Your task to perform on an android device: Open settings on Google Maps Image 0: 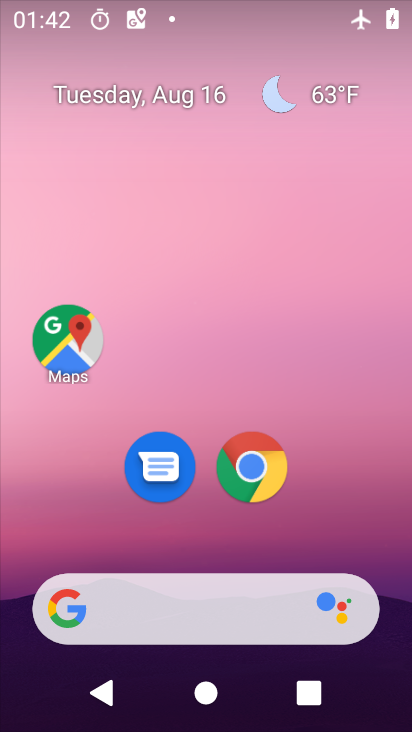
Step 0: press home button
Your task to perform on an android device: Open settings on Google Maps Image 1: 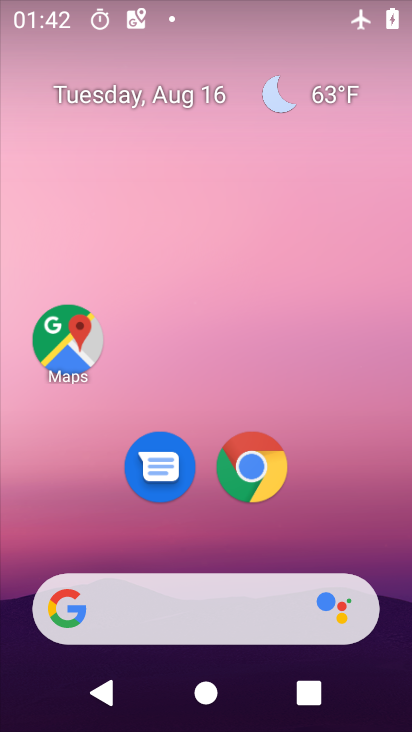
Step 1: drag from (381, 514) to (384, 117)
Your task to perform on an android device: Open settings on Google Maps Image 2: 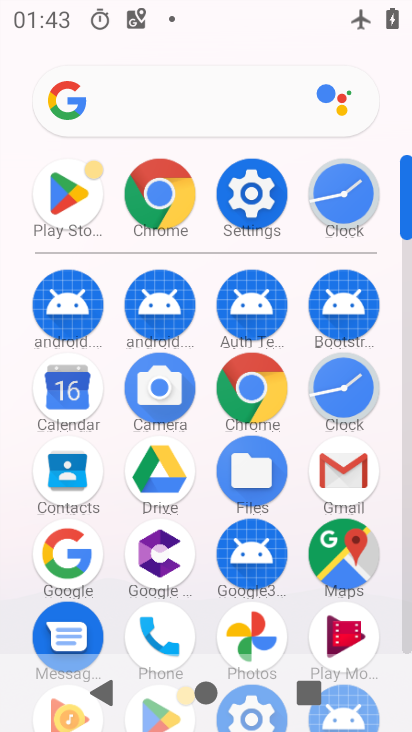
Step 2: click (351, 571)
Your task to perform on an android device: Open settings on Google Maps Image 3: 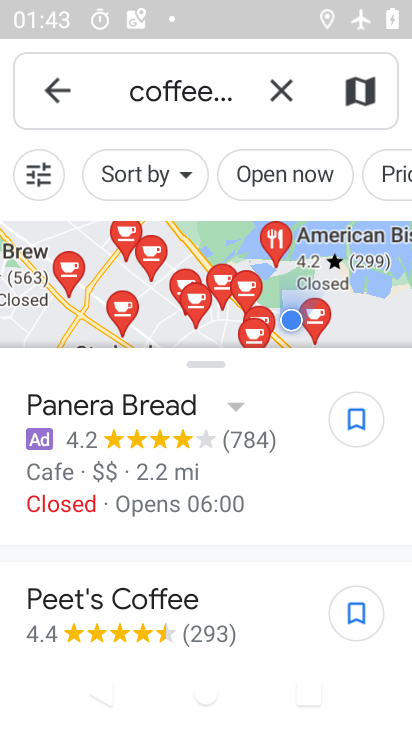
Step 3: press back button
Your task to perform on an android device: Open settings on Google Maps Image 4: 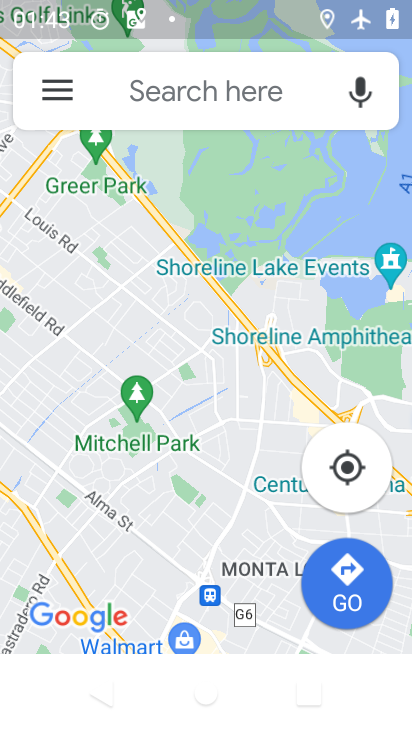
Step 4: click (51, 85)
Your task to perform on an android device: Open settings on Google Maps Image 5: 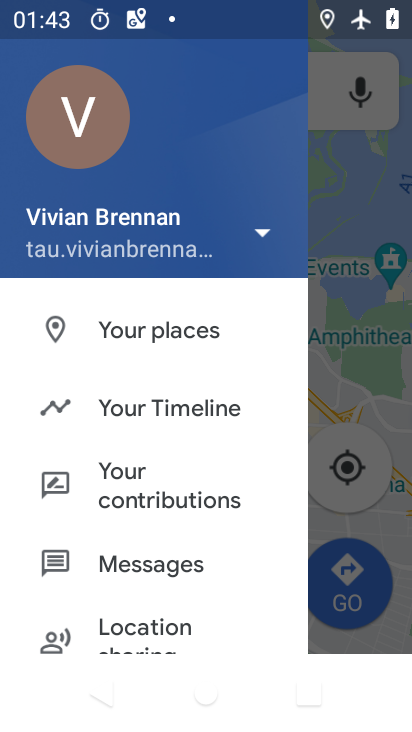
Step 5: drag from (236, 584) to (260, 462)
Your task to perform on an android device: Open settings on Google Maps Image 6: 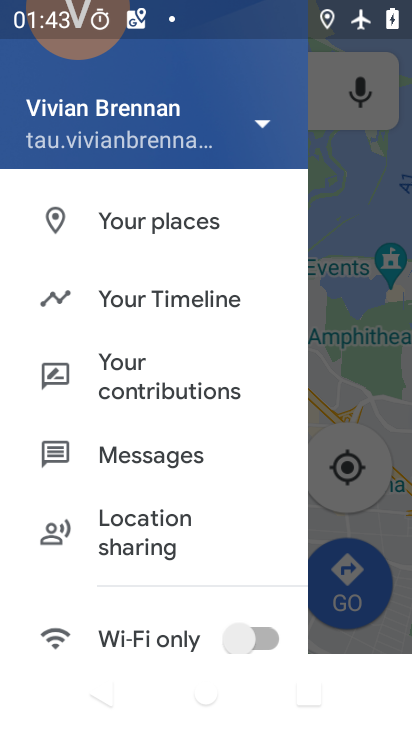
Step 6: drag from (211, 612) to (197, 446)
Your task to perform on an android device: Open settings on Google Maps Image 7: 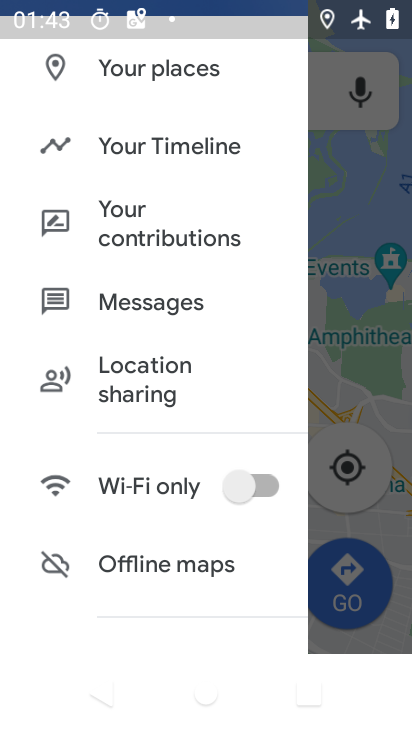
Step 7: drag from (183, 637) to (182, 423)
Your task to perform on an android device: Open settings on Google Maps Image 8: 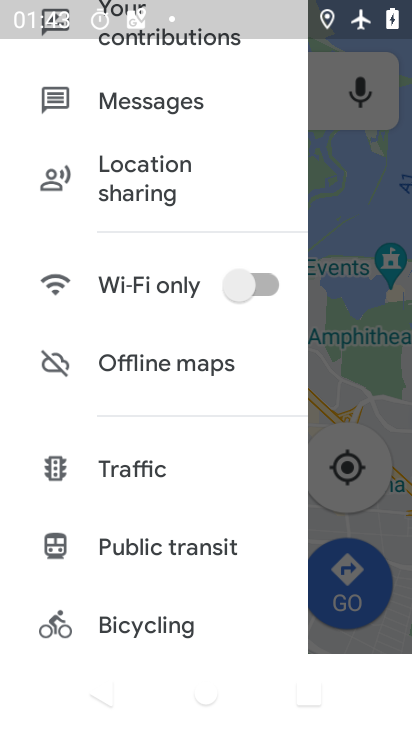
Step 8: drag from (243, 611) to (209, 442)
Your task to perform on an android device: Open settings on Google Maps Image 9: 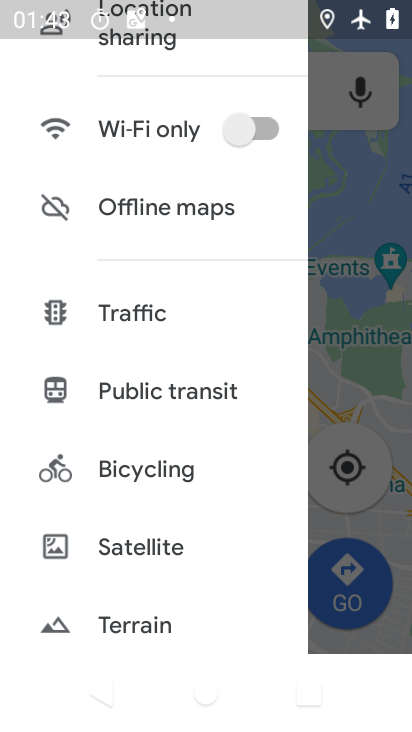
Step 9: drag from (211, 626) to (212, 440)
Your task to perform on an android device: Open settings on Google Maps Image 10: 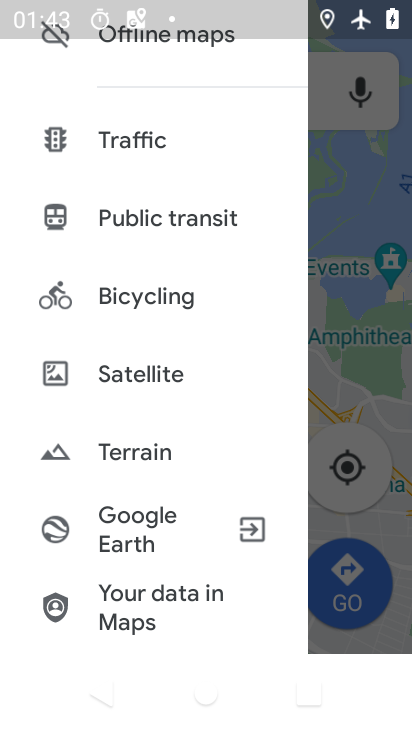
Step 10: drag from (211, 607) to (211, 338)
Your task to perform on an android device: Open settings on Google Maps Image 11: 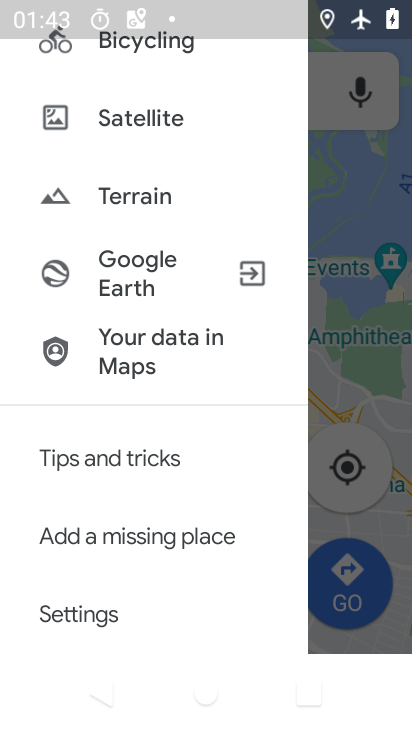
Step 11: click (145, 621)
Your task to perform on an android device: Open settings on Google Maps Image 12: 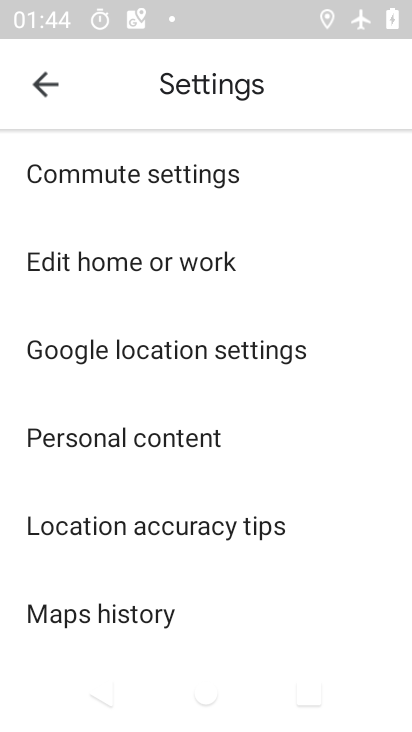
Step 12: task complete